Your task to perform on an android device: turn off translation in the chrome app Image 0: 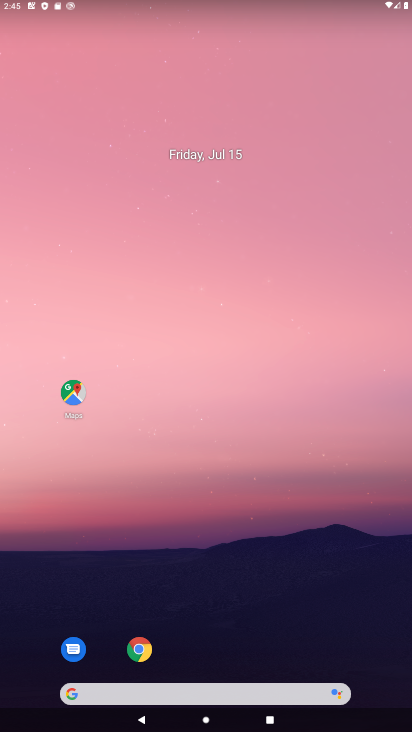
Step 0: drag from (227, 717) to (144, 234)
Your task to perform on an android device: turn off translation in the chrome app Image 1: 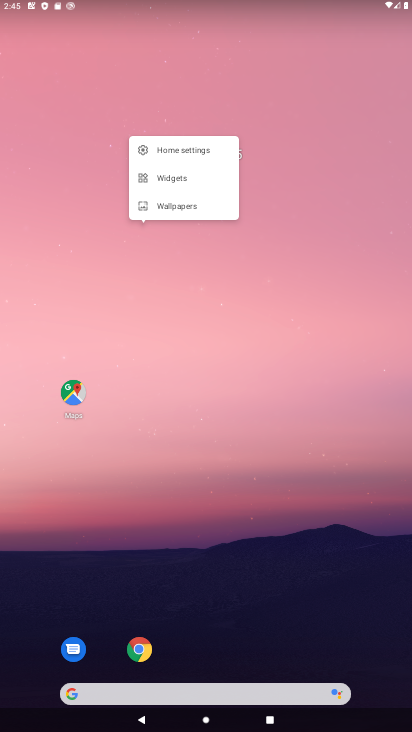
Step 1: drag from (286, 583) to (237, 66)
Your task to perform on an android device: turn off translation in the chrome app Image 2: 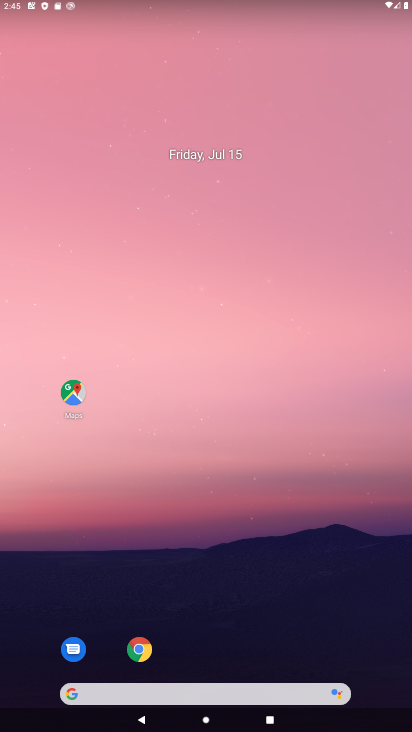
Step 2: drag from (281, 540) to (275, 73)
Your task to perform on an android device: turn off translation in the chrome app Image 3: 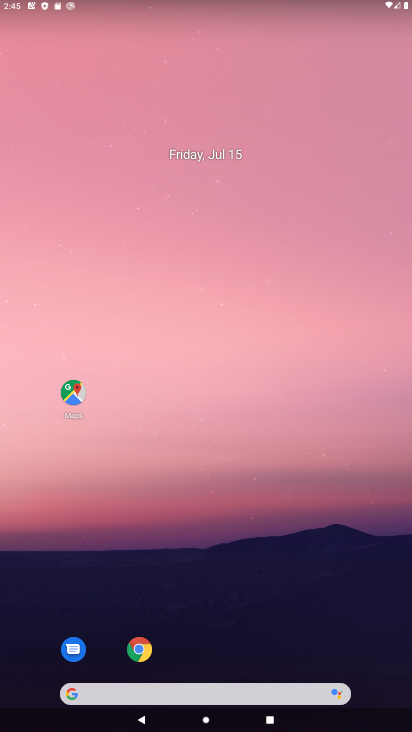
Step 3: drag from (232, 597) to (220, 144)
Your task to perform on an android device: turn off translation in the chrome app Image 4: 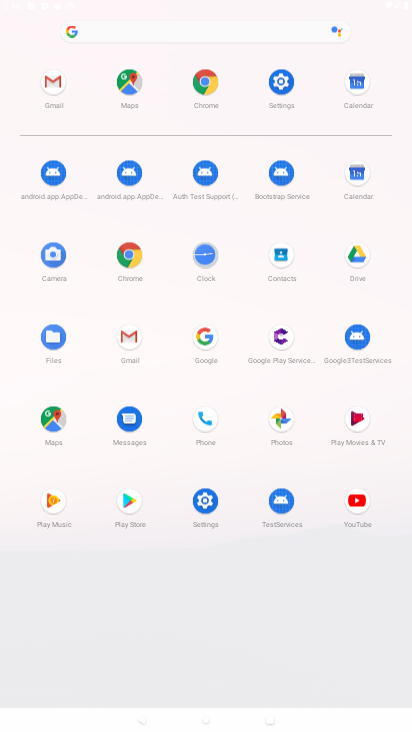
Step 4: click (235, 443)
Your task to perform on an android device: turn off translation in the chrome app Image 5: 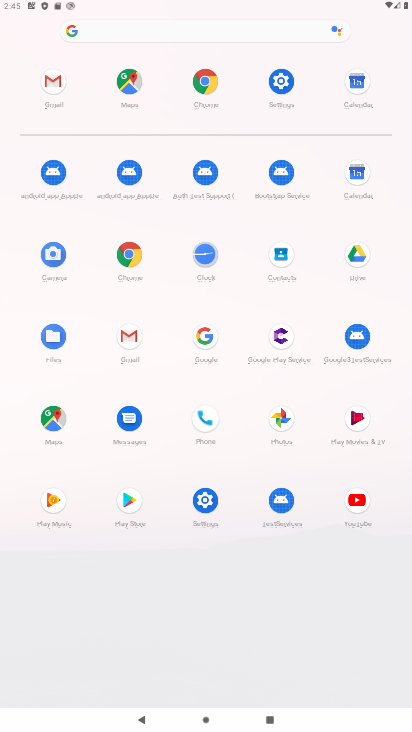
Step 5: click (234, 444)
Your task to perform on an android device: turn off translation in the chrome app Image 6: 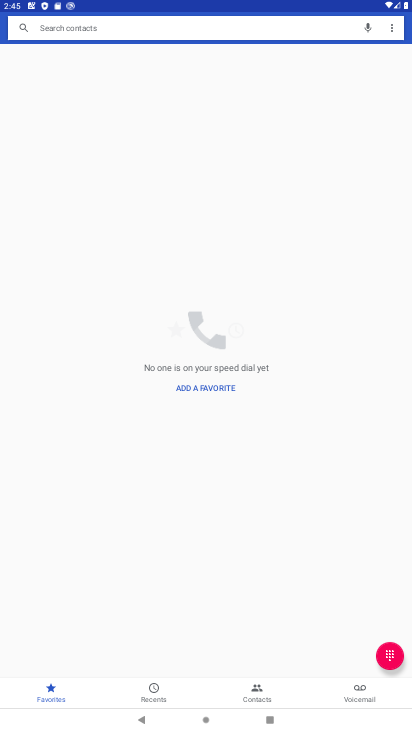
Step 6: press back button
Your task to perform on an android device: turn off translation in the chrome app Image 7: 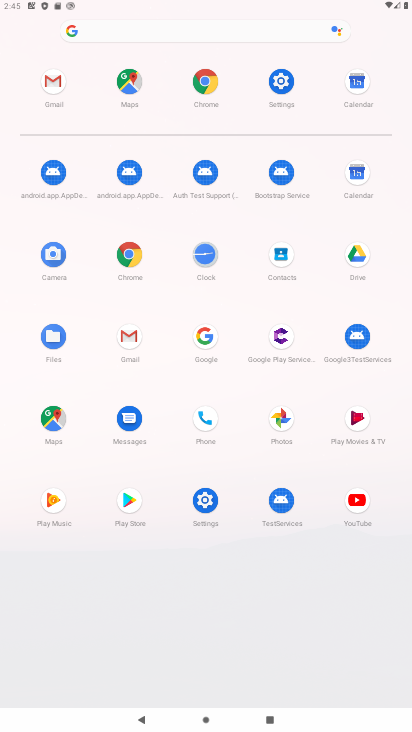
Step 7: click (202, 83)
Your task to perform on an android device: turn off translation in the chrome app Image 8: 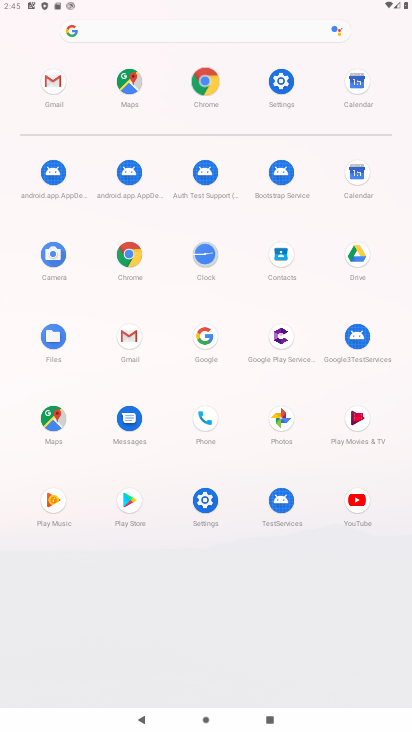
Step 8: click (202, 83)
Your task to perform on an android device: turn off translation in the chrome app Image 9: 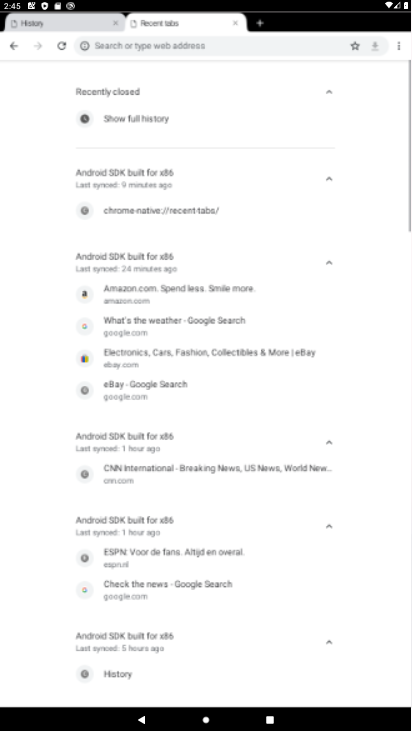
Step 9: click (203, 83)
Your task to perform on an android device: turn off translation in the chrome app Image 10: 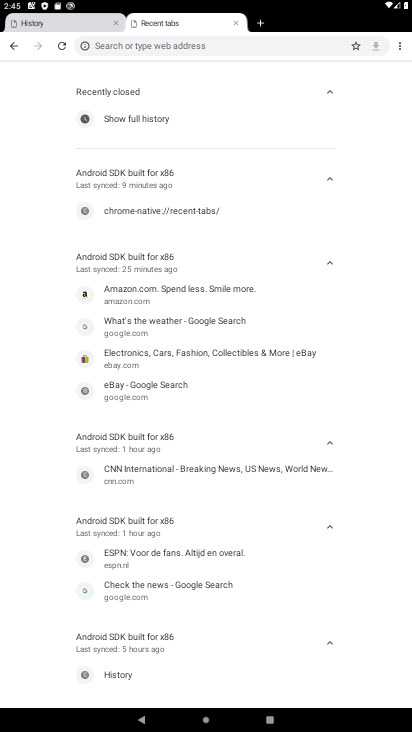
Step 10: drag from (398, 48) to (302, 215)
Your task to perform on an android device: turn off translation in the chrome app Image 11: 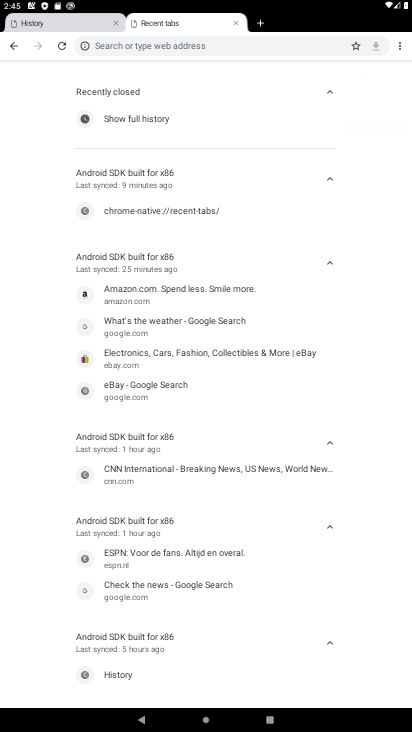
Step 11: click (303, 216)
Your task to perform on an android device: turn off translation in the chrome app Image 12: 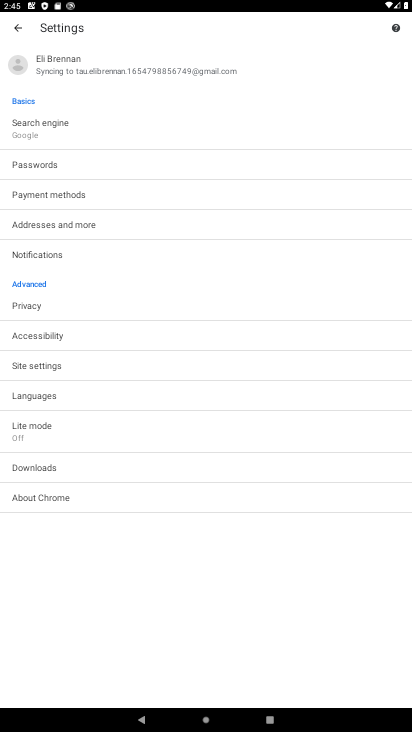
Step 12: click (32, 394)
Your task to perform on an android device: turn off translation in the chrome app Image 13: 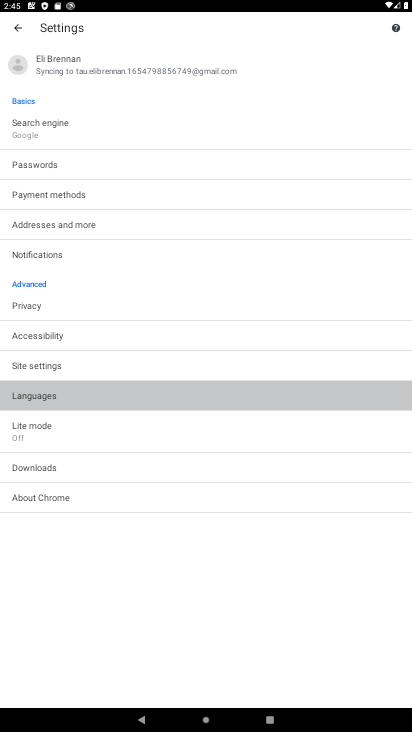
Step 13: click (34, 394)
Your task to perform on an android device: turn off translation in the chrome app Image 14: 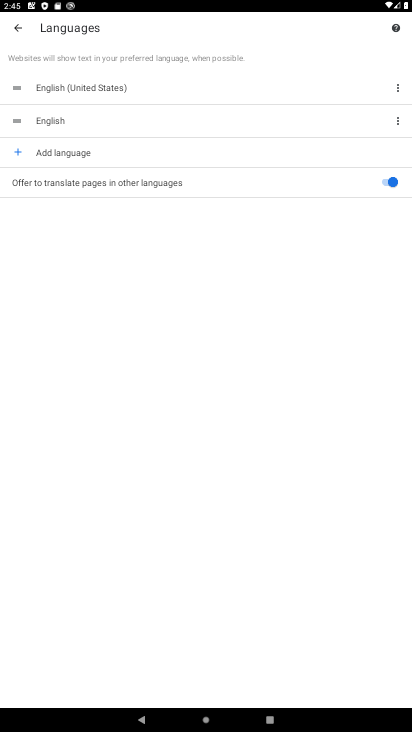
Step 14: click (391, 182)
Your task to perform on an android device: turn off translation in the chrome app Image 15: 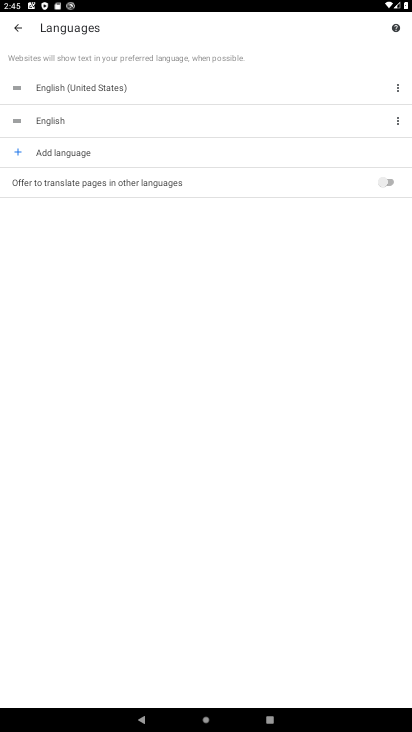
Step 15: task complete